Your task to perform on an android device: Do I have any events today? Image 0: 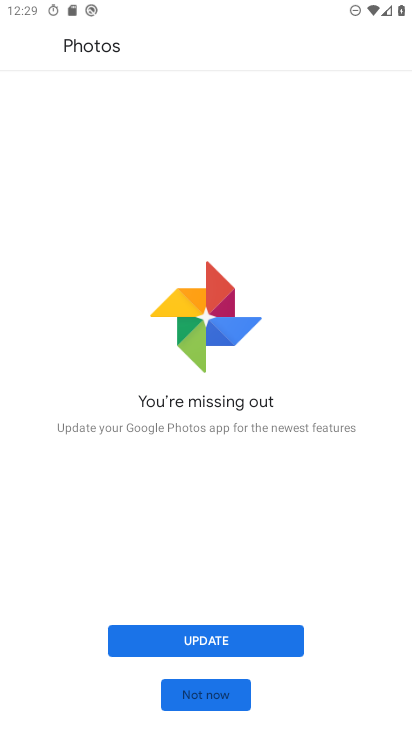
Step 0: press home button
Your task to perform on an android device: Do I have any events today? Image 1: 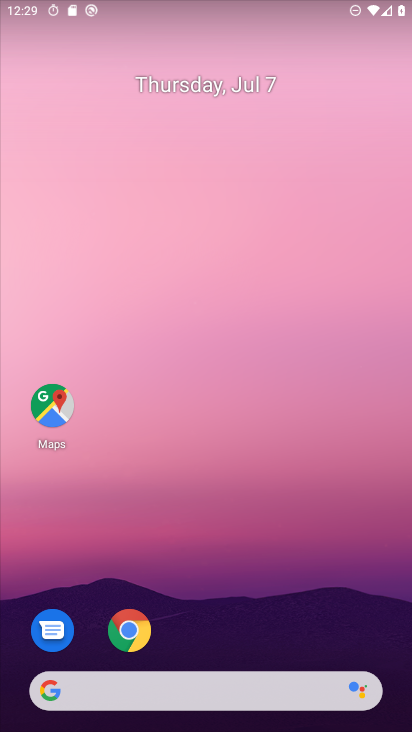
Step 1: drag from (242, 658) to (253, 0)
Your task to perform on an android device: Do I have any events today? Image 2: 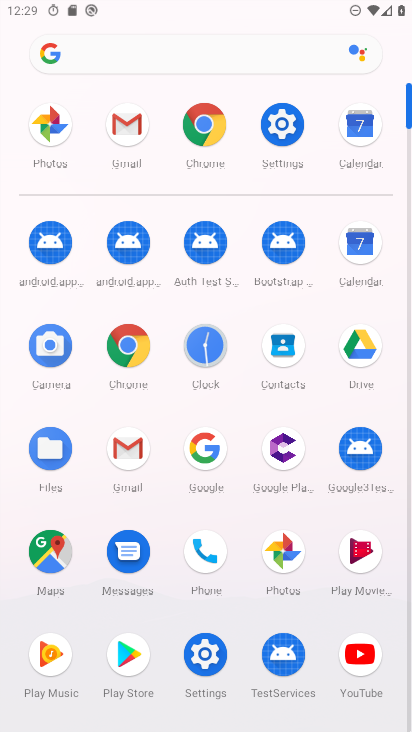
Step 2: click (369, 253)
Your task to perform on an android device: Do I have any events today? Image 3: 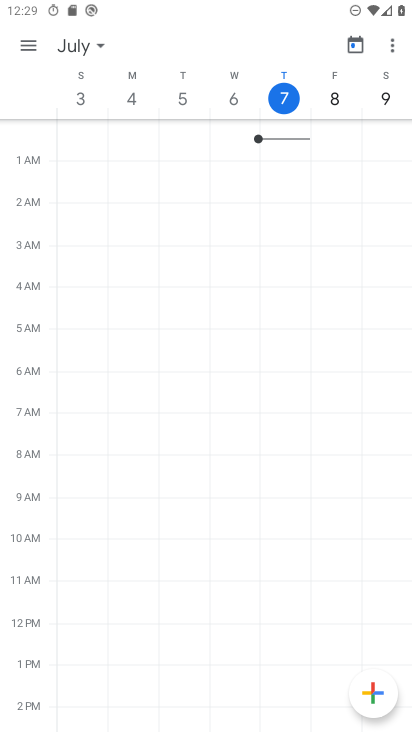
Step 3: click (23, 43)
Your task to perform on an android device: Do I have any events today? Image 4: 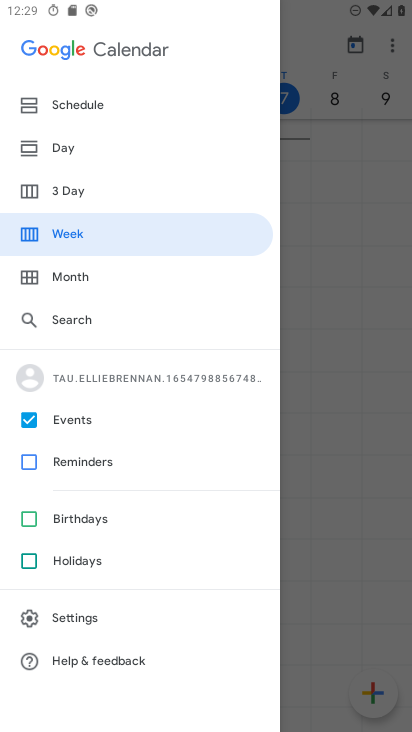
Step 4: click (70, 151)
Your task to perform on an android device: Do I have any events today? Image 5: 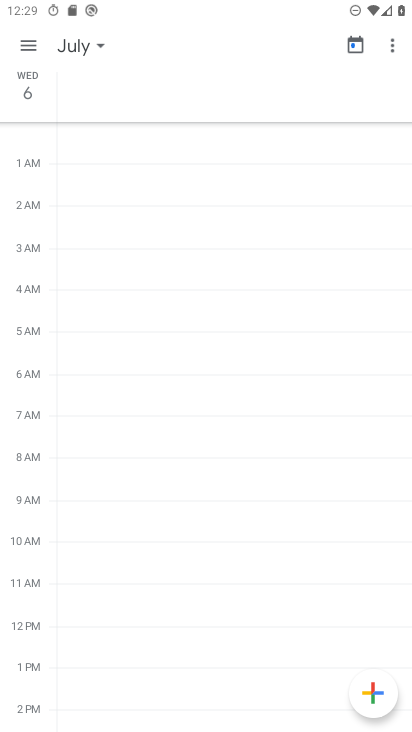
Step 5: task complete